Your task to perform on an android device: find photos in the google photos app Image 0: 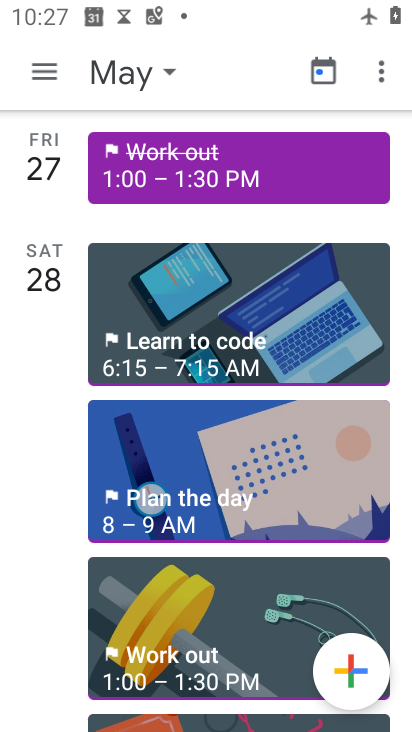
Step 0: press home button
Your task to perform on an android device: find photos in the google photos app Image 1: 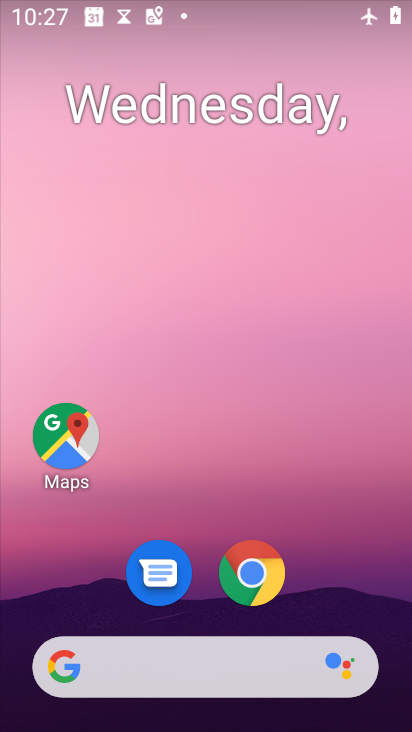
Step 1: drag from (308, 574) to (300, 284)
Your task to perform on an android device: find photos in the google photos app Image 2: 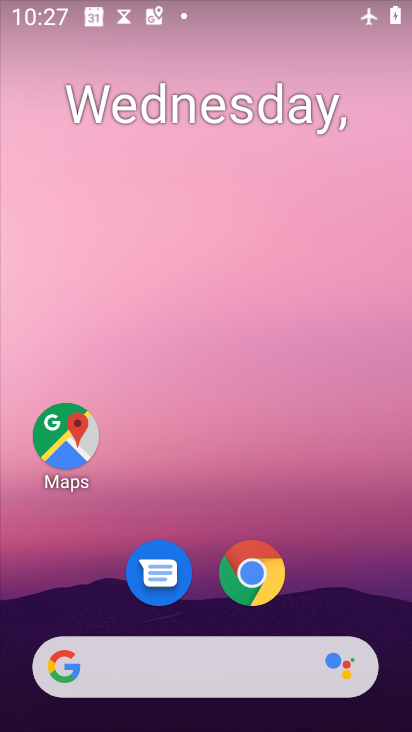
Step 2: drag from (271, 624) to (325, 278)
Your task to perform on an android device: find photos in the google photos app Image 3: 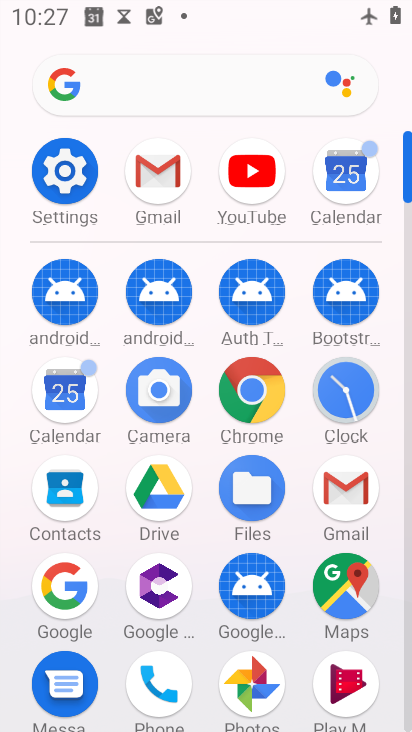
Step 3: click (258, 685)
Your task to perform on an android device: find photos in the google photos app Image 4: 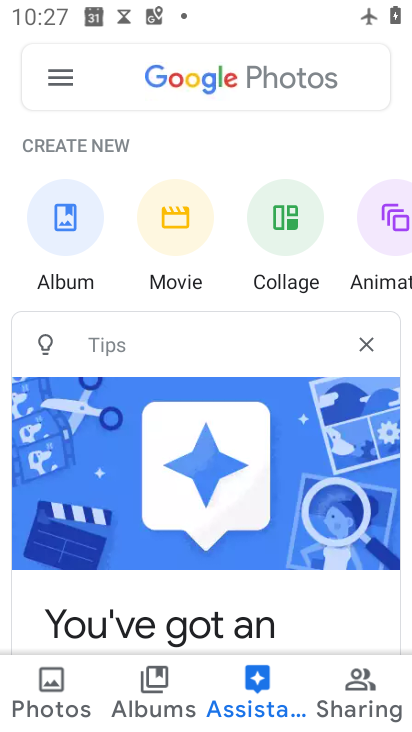
Step 4: click (144, 685)
Your task to perform on an android device: find photos in the google photos app Image 5: 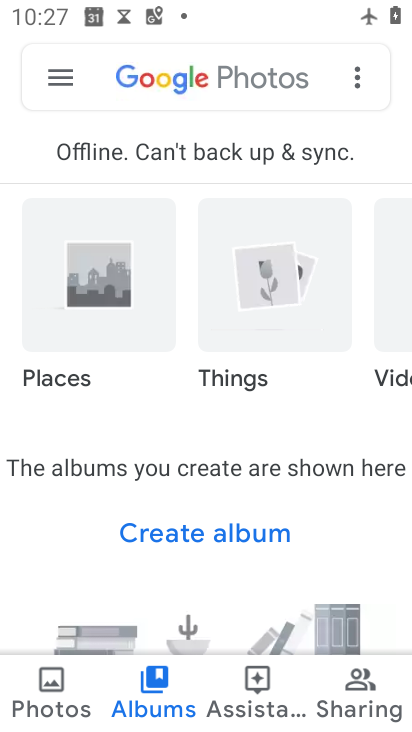
Step 5: click (65, 692)
Your task to perform on an android device: find photos in the google photos app Image 6: 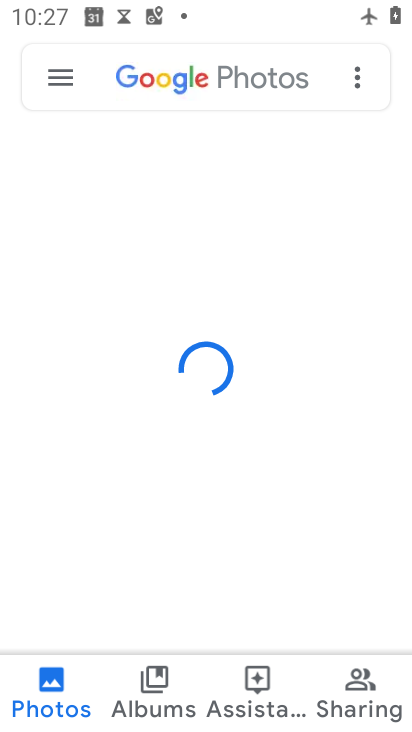
Step 6: click (151, 673)
Your task to perform on an android device: find photos in the google photos app Image 7: 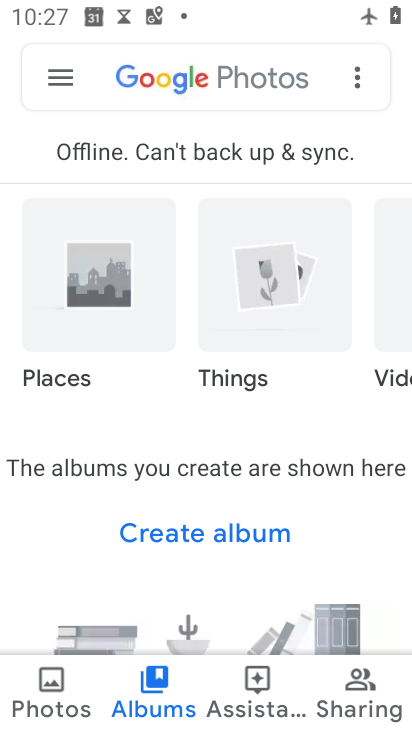
Step 7: click (43, 684)
Your task to perform on an android device: find photos in the google photos app Image 8: 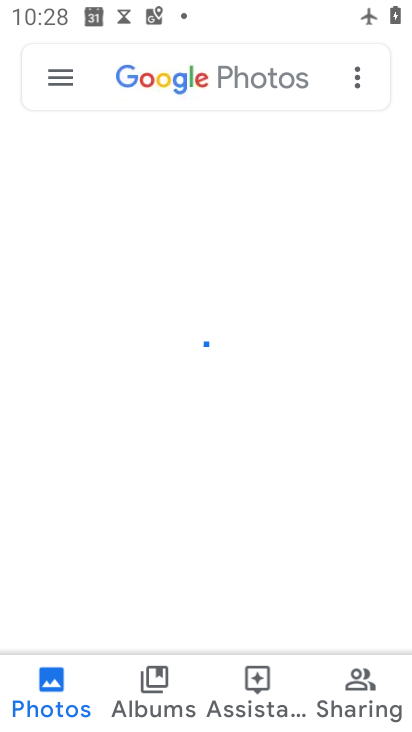
Step 8: click (170, 672)
Your task to perform on an android device: find photos in the google photos app Image 9: 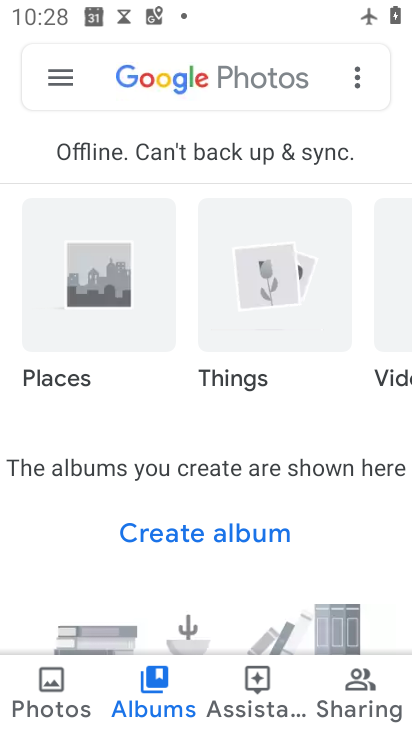
Step 9: click (59, 683)
Your task to perform on an android device: find photos in the google photos app Image 10: 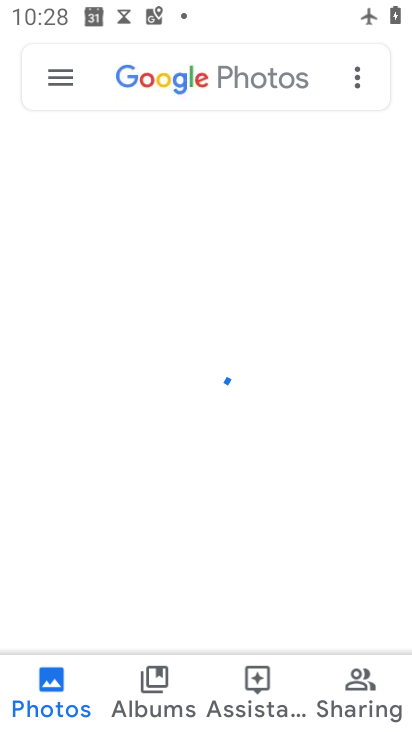
Step 10: click (298, 328)
Your task to perform on an android device: find photos in the google photos app Image 11: 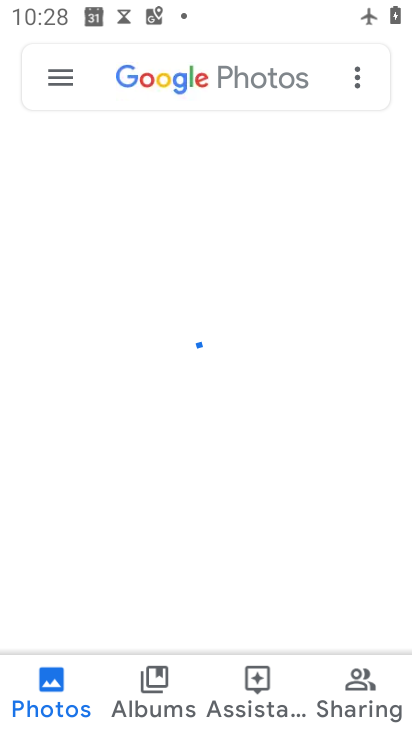
Step 11: click (159, 681)
Your task to perform on an android device: find photos in the google photos app Image 12: 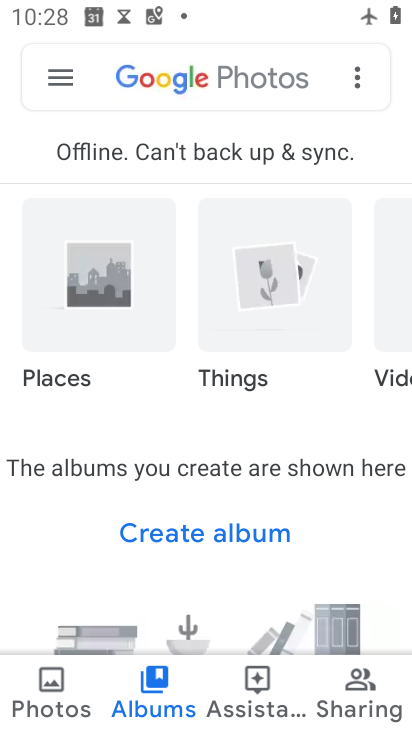
Step 12: click (264, 356)
Your task to perform on an android device: find photos in the google photos app Image 13: 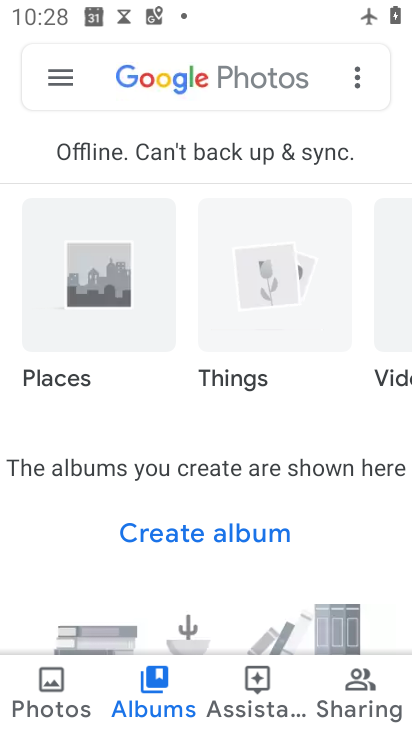
Step 13: click (60, 307)
Your task to perform on an android device: find photos in the google photos app Image 14: 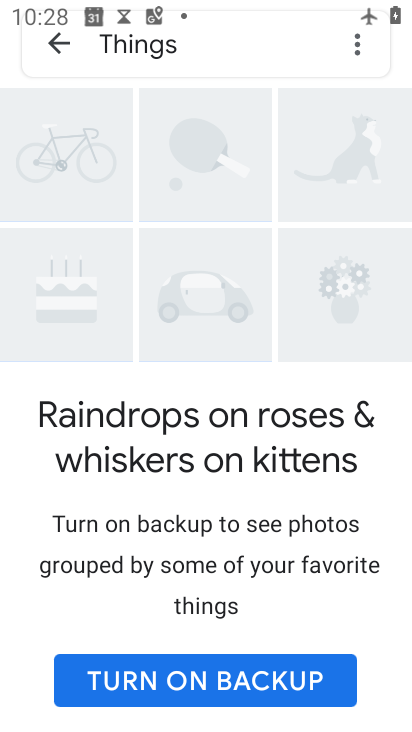
Step 14: click (51, 35)
Your task to perform on an android device: find photos in the google photos app Image 15: 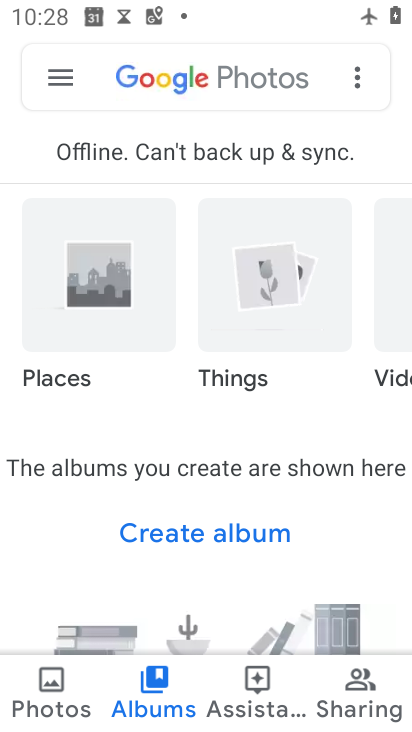
Step 15: click (64, 689)
Your task to perform on an android device: find photos in the google photos app Image 16: 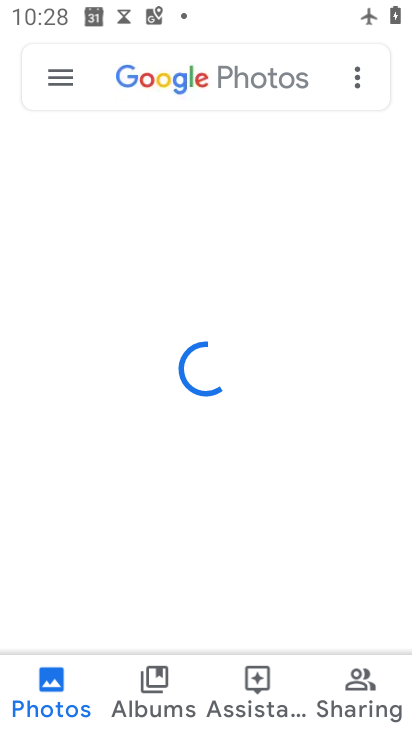
Step 16: task complete